Your task to perform on an android device: Go to Google maps Image 0: 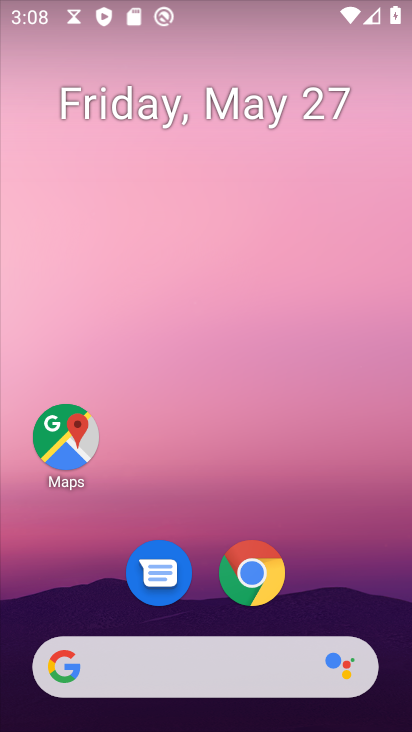
Step 0: drag from (291, 435) to (302, 71)
Your task to perform on an android device: Go to Google maps Image 1: 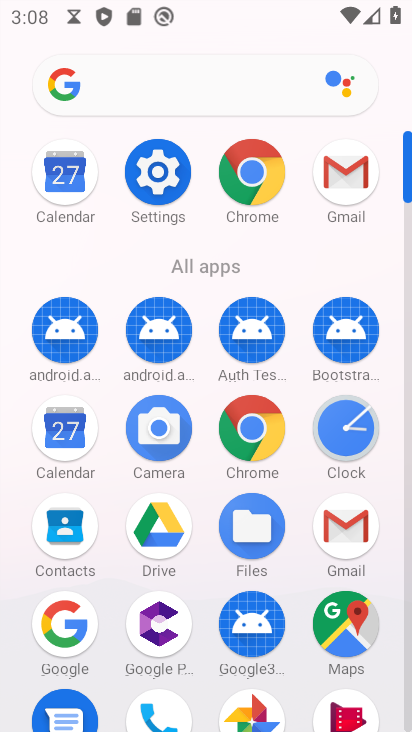
Step 1: click (353, 611)
Your task to perform on an android device: Go to Google maps Image 2: 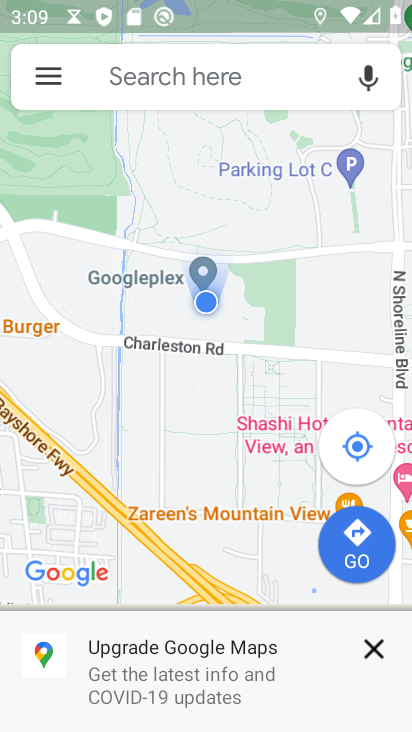
Step 2: task complete